Your task to perform on an android device: empty trash in google photos Image 0: 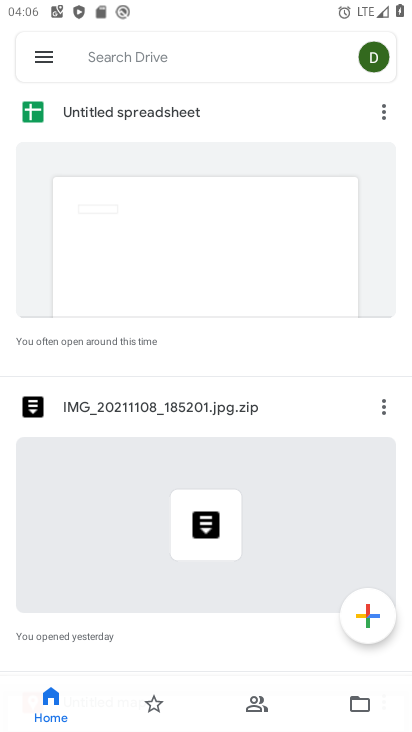
Step 0: drag from (222, 2) to (153, 540)
Your task to perform on an android device: empty trash in google photos Image 1: 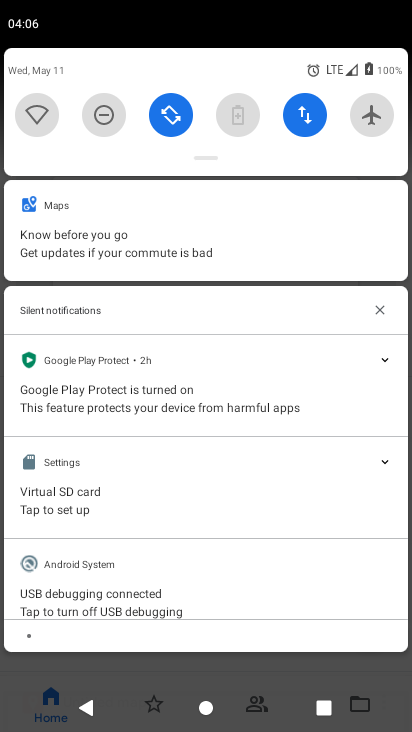
Step 1: click (103, 111)
Your task to perform on an android device: empty trash in google photos Image 2: 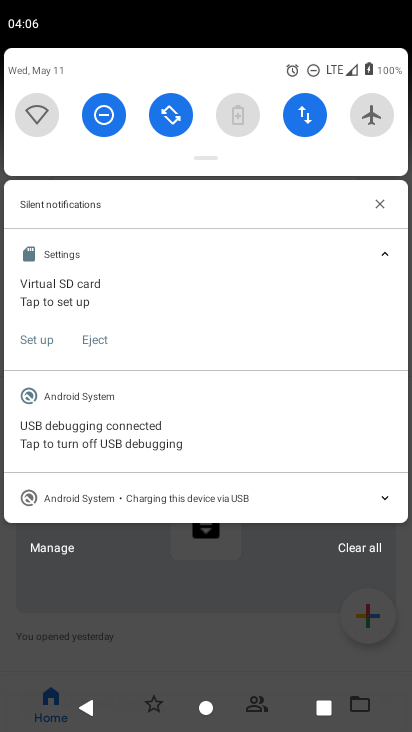
Step 2: task complete